Your task to perform on an android device: Go to Amazon Image 0: 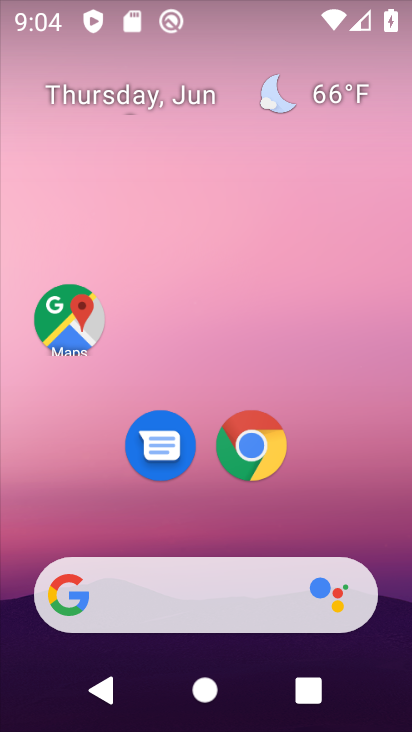
Step 0: click (254, 444)
Your task to perform on an android device: Go to Amazon Image 1: 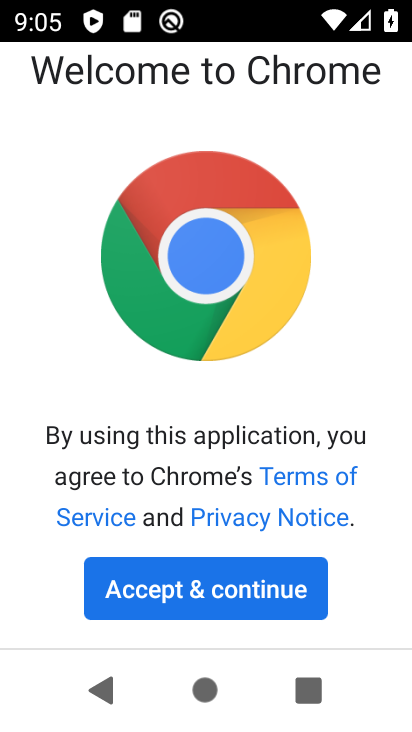
Step 1: click (153, 602)
Your task to perform on an android device: Go to Amazon Image 2: 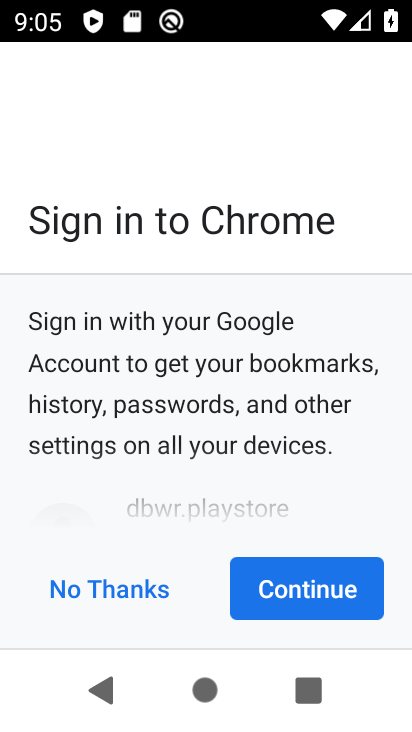
Step 2: click (312, 585)
Your task to perform on an android device: Go to Amazon Image 3: 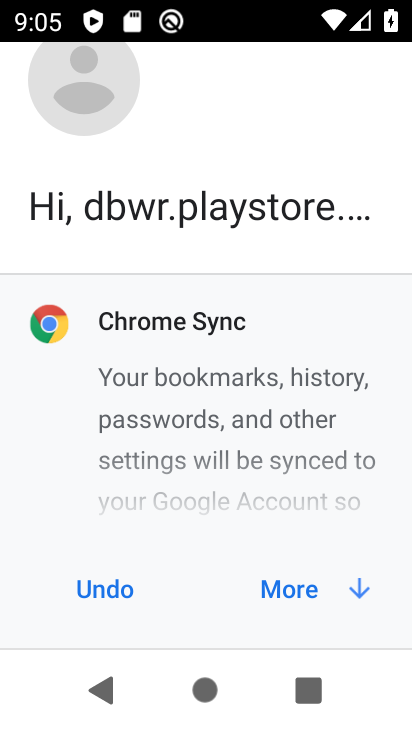
Step 3: click (316, 571)
Your task to perform on an android device: Go to Amazon Image 4: 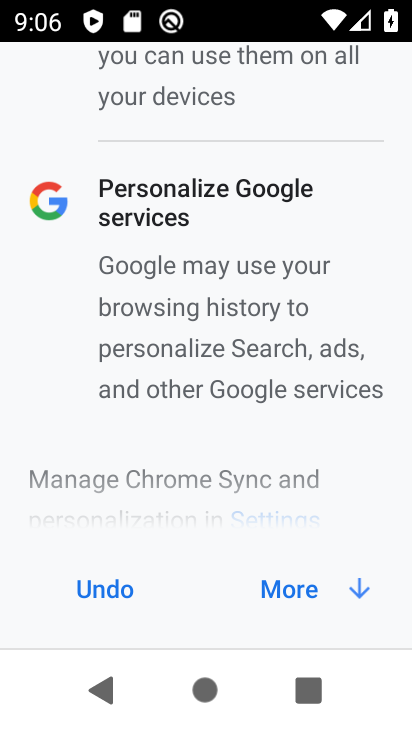
Step 4: click (312, 579)
Your task to perform on an android device: Go to Amazon Image 5: 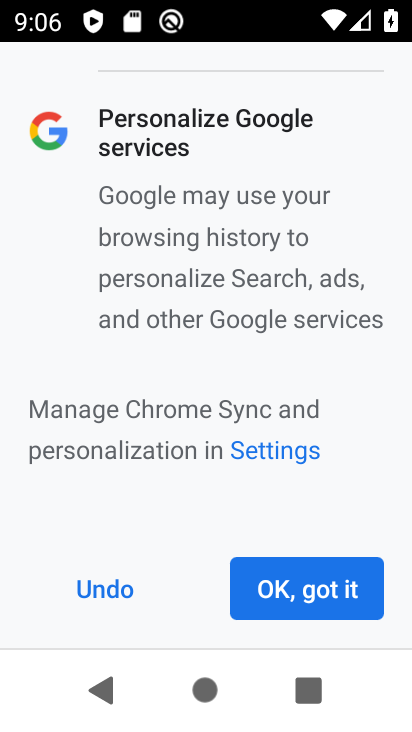
Step 5: click (257, 594)
Your task to perform on an android device: Go to Amazon Image 6: 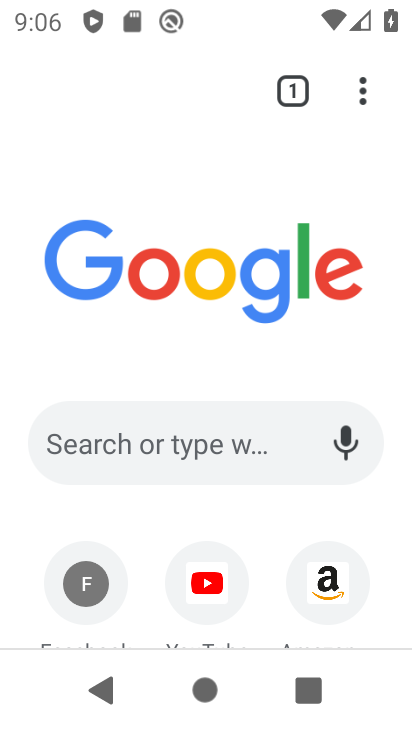
Step 6: click (331, 576)
Your task to perform on an android device: Go to Amazon Image 7: 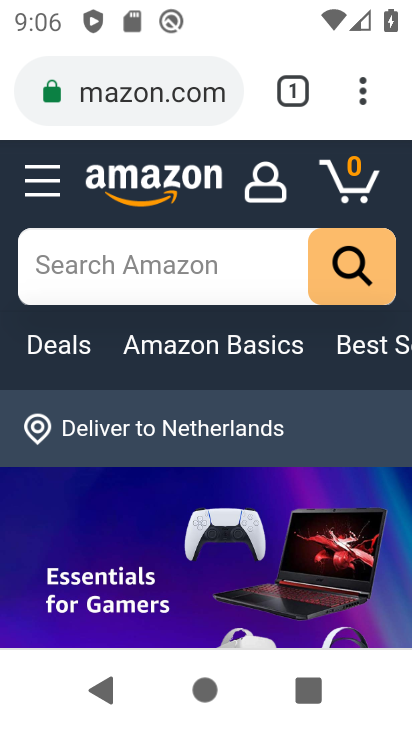
Step 7: task complete